Your task to perform on an android device: Open the Play Movies app and select the watchlist tab. Image 0: 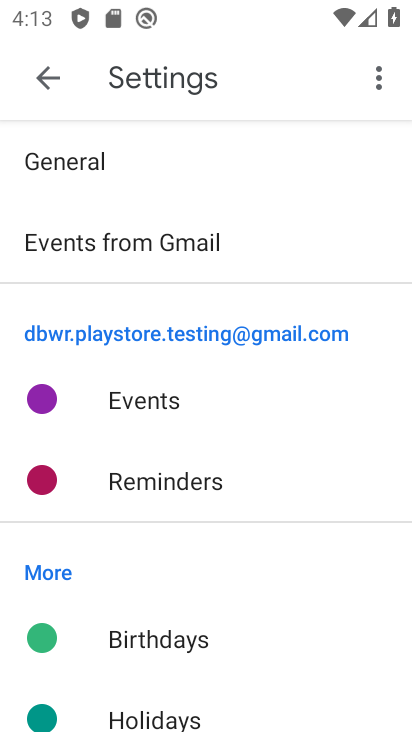
Step 0: press home button
Your task to perform on an android device: Open the Play Movies app and select the watchlist tab. Image 1: 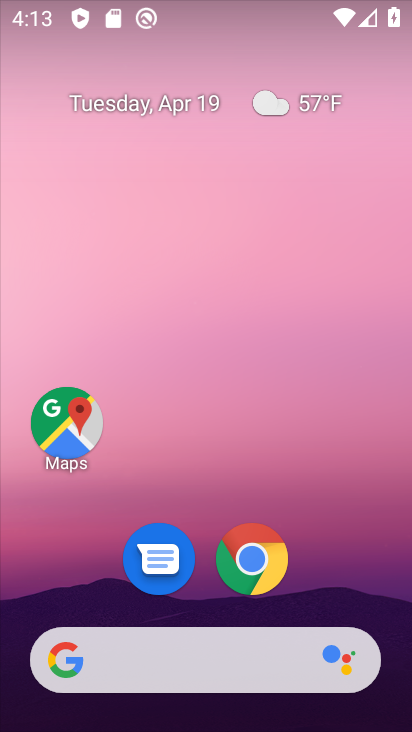
Step 1: drag from (375, 512) to (319, 211)
Your task to perform on an android device: Open the Play Movies app and select the watchlist tab. Image 2: 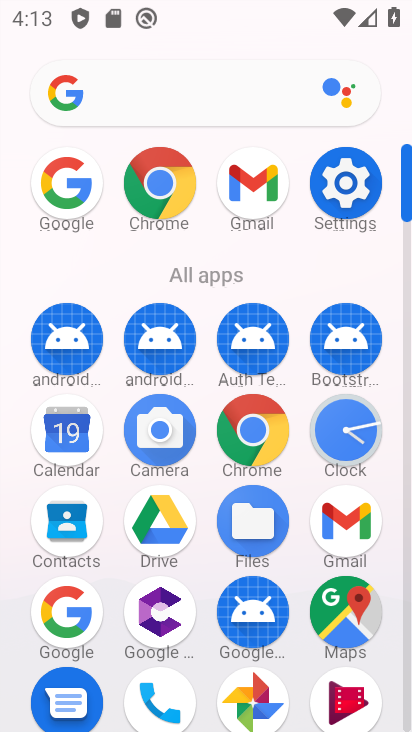
Step 2: click (334, 700)
Your task to perform on an android device: Open the Play Movies app and select the watchlist tab. Image 3: 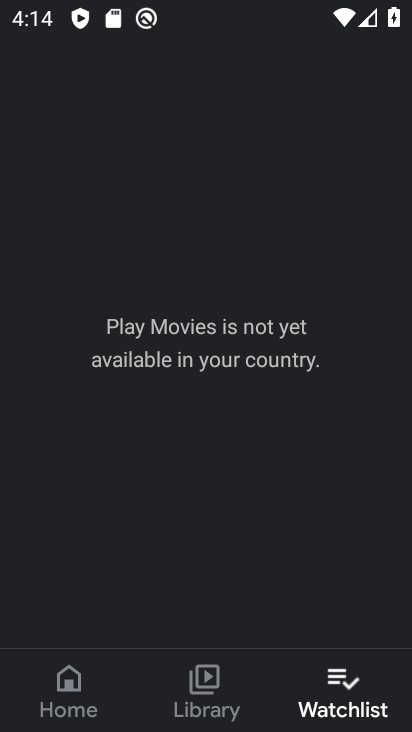
Step 3: task complete